Your task to perform on an android device: Search for Mexican restaurants on Maps Image 0: 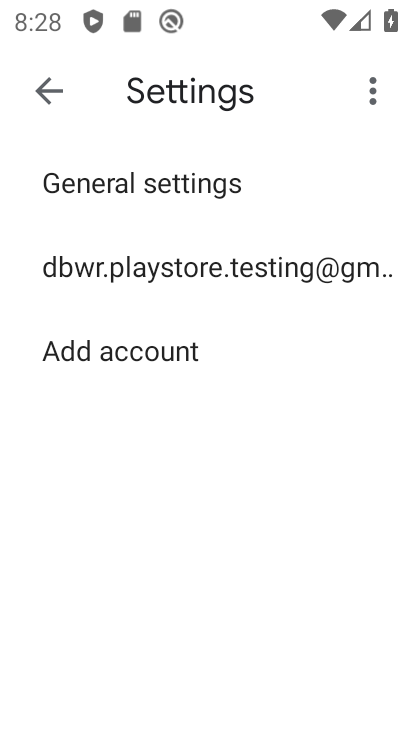
Step 0: press home button
Your task to perform on an android device: Search for Mexican restaurants on Maps Image 1: 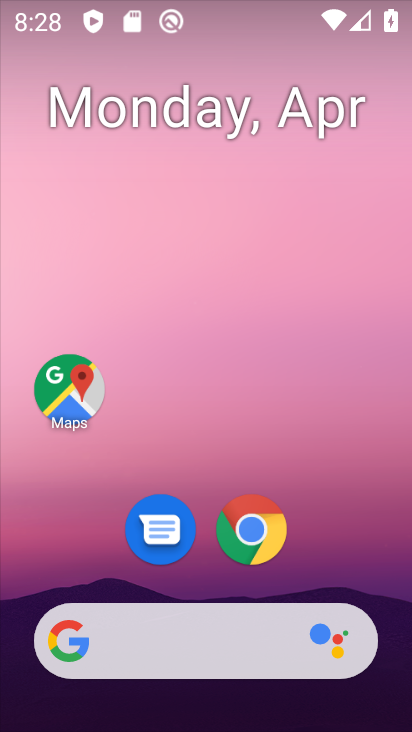
Step 1: drag from (336, 488) to (339, 176)
Your task to perform on an android device: Search for Mexican restaurants on Maps Image 2: 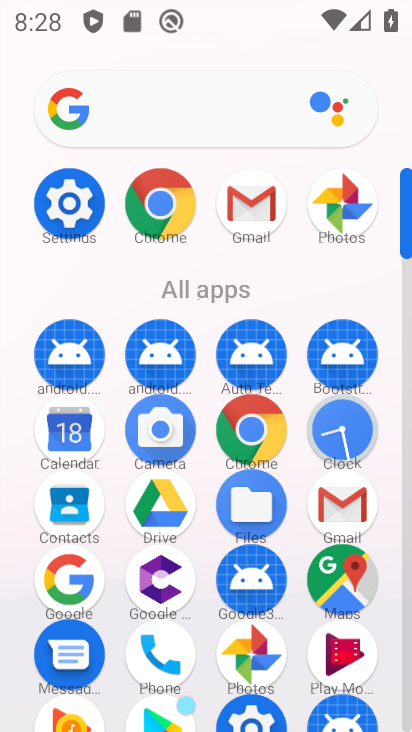
Step 2: click (351, 592)
Your task to perform on an android device: Search for Mexican restaurants on Maps Image 3: 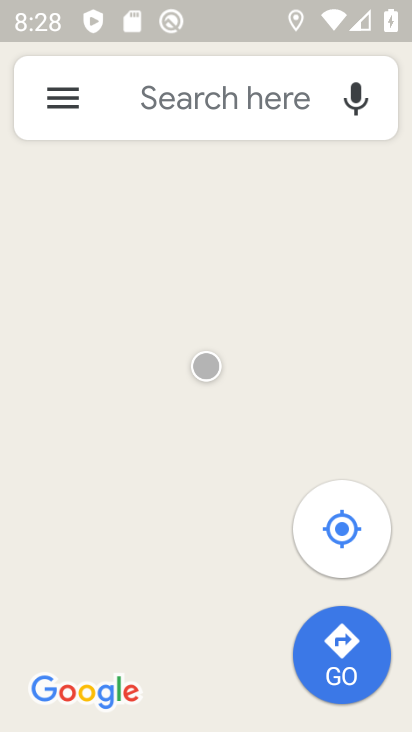
Step 3: click (196, 116)
Your task to perform on an android device: Search for Mexican restaurants on Maps Image 4: 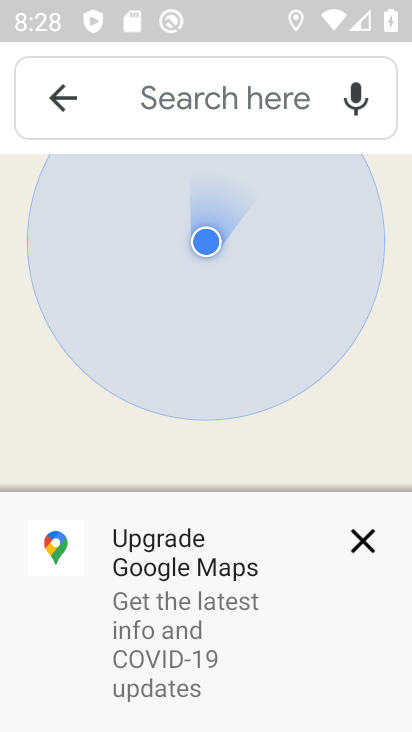
Step 4: click (214, 106)
Your task to perform on an android device: Search for Mexican restaurants on Maps Image 5: 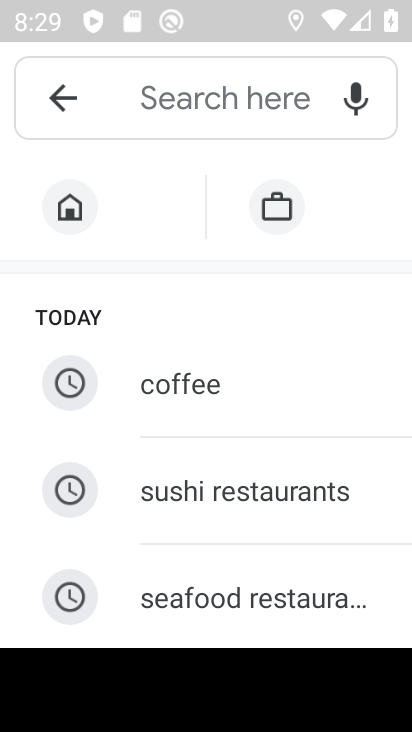
Step 5: type "mexican restaurants"
Your task to perform on an android device: Search for Mexican restaurants on Maps Image 6: 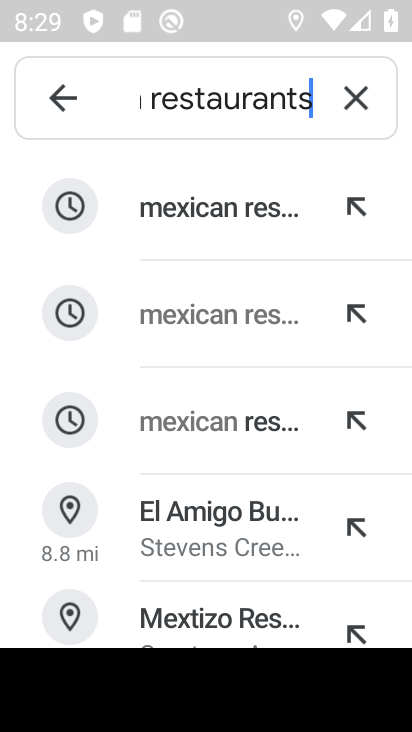
Step 6: click (185, 217)
Your task to perform on an android device: Search for Mexican restaurants on Maps Image 7: 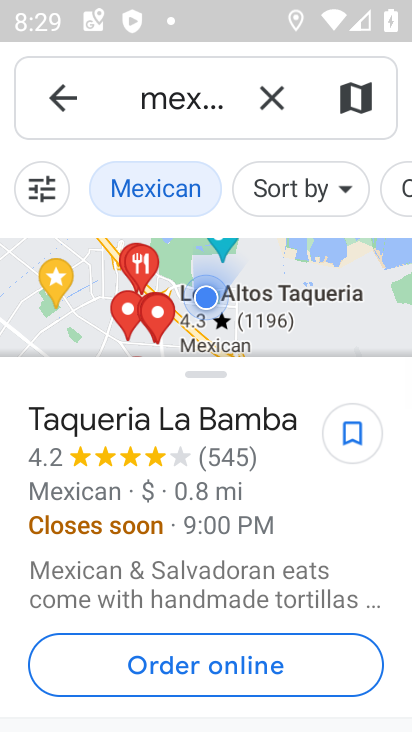
Step 7: task complete